Your task to perform on an android device: install app "ColorNote Notepad Notes" Image 0: 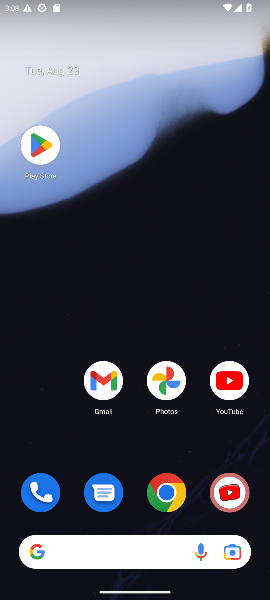
Step 0: click (39, 153)
Your task to perform on an android device: install app "ColorNote Notepad Notes" Image 1: 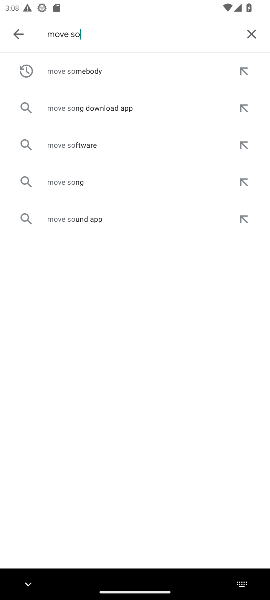
Step 1: click (256, 41)
Your task to perform on an android device: install app "ColorNote Notepad Notes" Image 2: 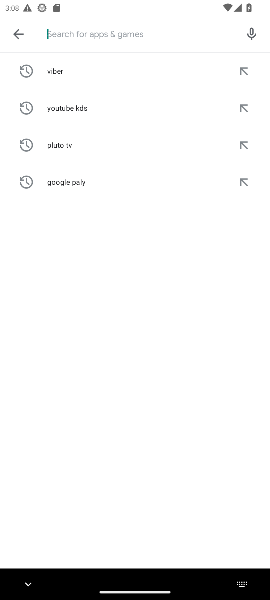
Step 2: type "colornotepad"
Your task to perform on an android device: install app "ColorNote Notepad Notes" Image 3: 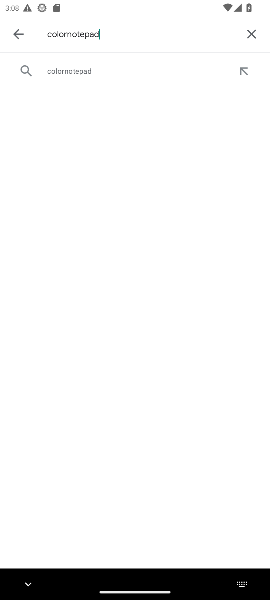
Step 3: click (103, 77)
Your task to perform on an android device: install app "ColorNote Notepad Notes" Image 4: 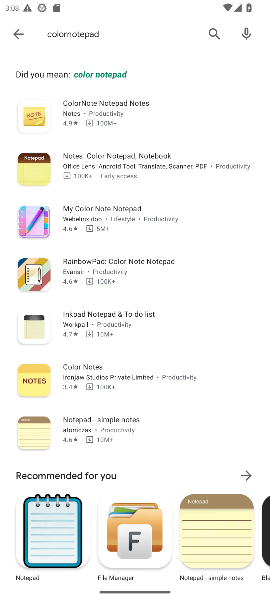
Step 4: click (172, 104)
Your task to perform on an android device: install app "ColorNote Notepad Notes" Image 5: 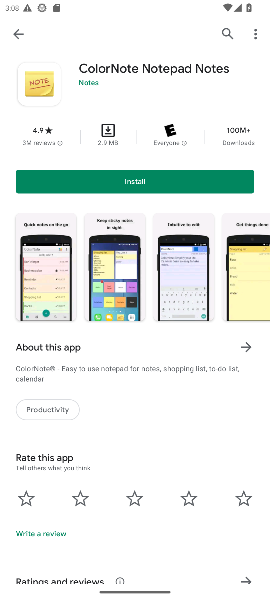
Step 5: click (160, 185)
Your task to perform on an android device: install app "ColorNote Notepad Notes" Image 6: 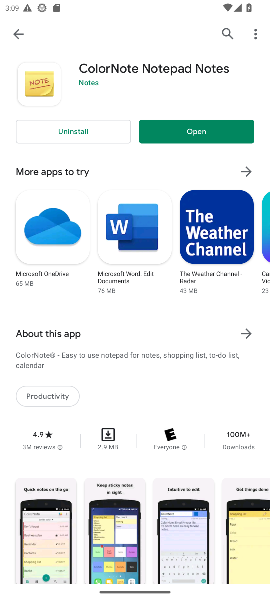
Step 6: click (191, 140)
Your task to perform on an android device: install app "ColorNote Notepad Notes" Image 7: 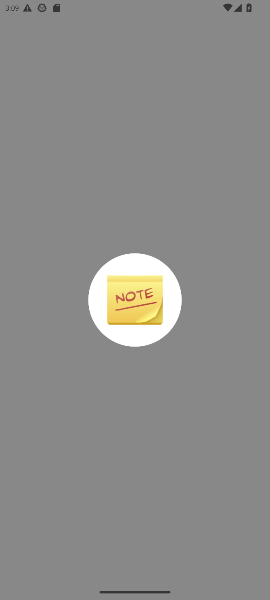
Step 7: task complete